Your task to perform on an android device: Show the shopping cart on newegg. Add "usb-a" to the cart on newegg, then select checkout. Image 0: 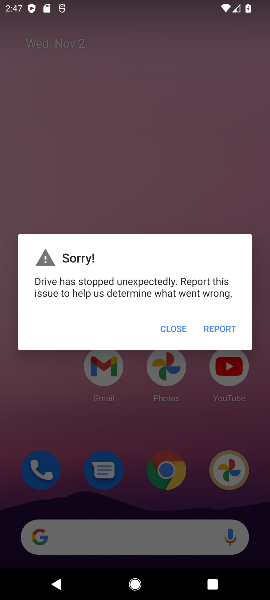
Step 0: click (165, 326)
Your task to perform on an android device: Show the shopping cart on newegg. Add "usb-a" to the cart on newegg, then select checkout. Image 1: 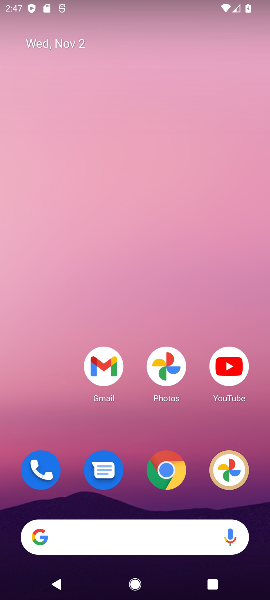
Step 1: drag from (88, 476) to (135, 116)
Your task to perform on an android device: Show the shopping cart on newegg. Add "usb-a" to the cart on newegg, then select checkout. Image 2: 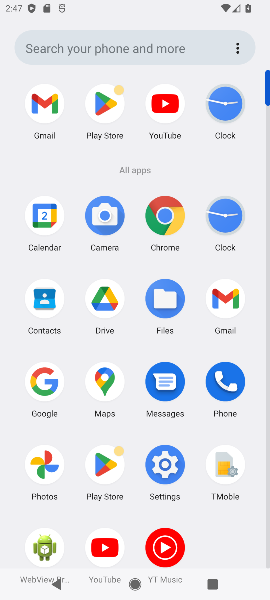
Step 2: click (41, 374)
Your task to perform on an android device: Show the shopping cart on newegg. Add "usb-a" to the cart on newegg, then select checkout. Image 3: 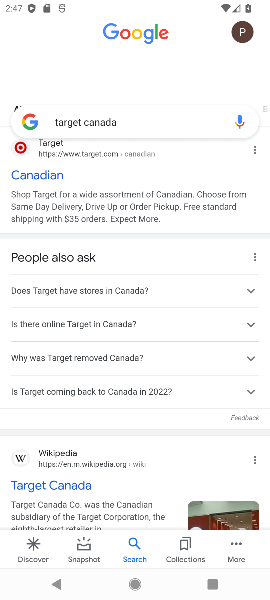
Step 3: click (131, 124)
Your task to perform on an android device: Show the shopping cart on newegg. Add "usb-a" to the cart on newegg, then select checkout. Image 4: 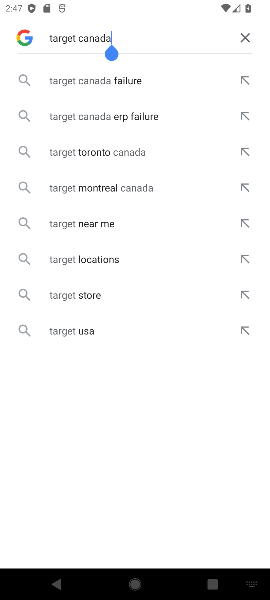
Step 4: click (247, 44)
Your task to perform on an android device: Show the shopping cart on newegg. Add "usb-a" to the cart on newegg, then select checkout. Image 5: 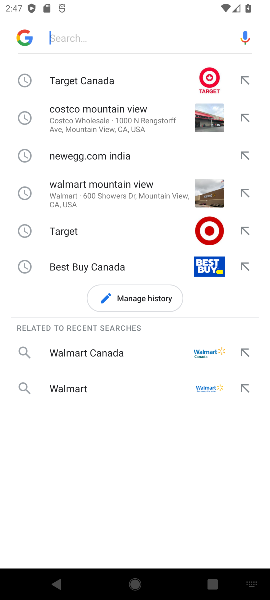
Step 5: click (96, 33)
Your task to perform on an android device: Show the shopping cart on newegg. Add "usb-a" to the cart on newegg, then select checkout. Image 6: 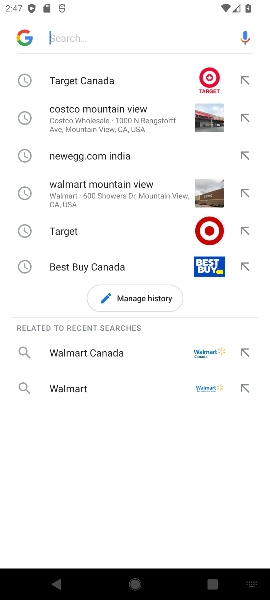
Step 6: type "newegg "
Your task to perform on an android device: Show the shopping cart on newegg. Add "usb-a" to the cart on newegg, then select checkout. Image 7: 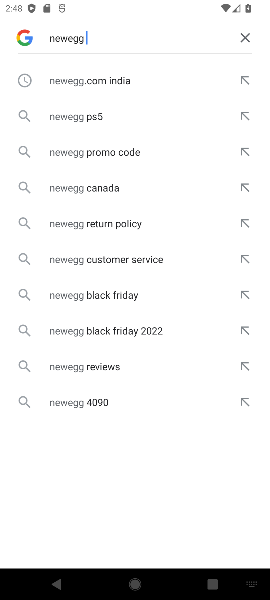
Step 7: click (85, 81)
Your task to perform on an android device: Show the shopping cart on newegg. Add "usb-a" to the cart on newegg, then select checkout. Image 8: 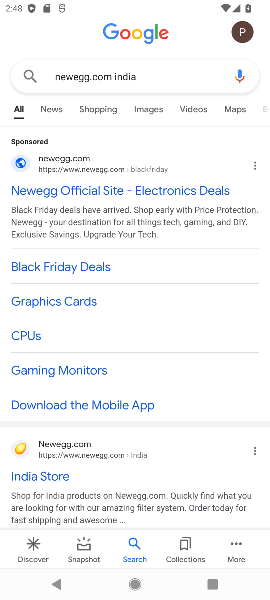
Step 8: click (17, 448)
Your task to perform on an android device: Show the shopping cart on newegg. Add "usb-a" to the cart on newegg, then select checkout. Image 9: 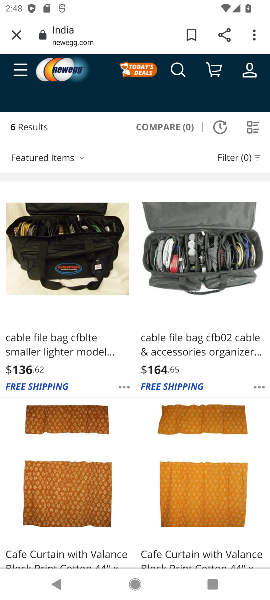
Step 9: click (176, 74)
Your task to perform on an android device: Show the shopping cart on newegg. Add "usb-a" to the cart on newegg, then select checkout. Image 10: 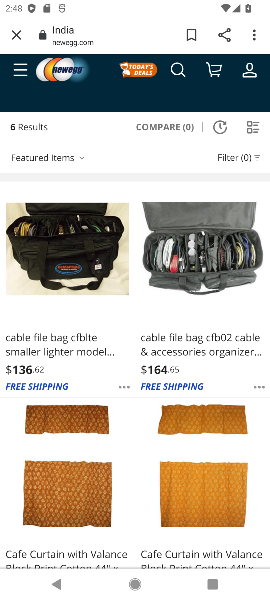
Step 10: click (175, 69)
Your task to perform on an android device: Show the shopping cart on newegg. Add "usb-a" to the cart on newegg, then select checkout. Image 11: 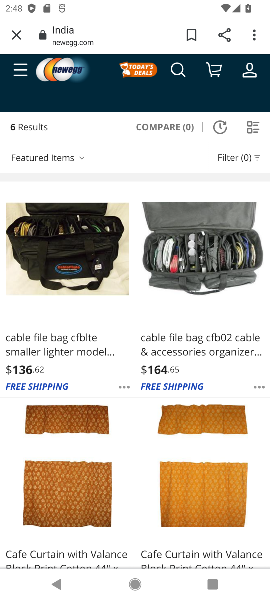
Step 11: click (178, 68)
Your task to perform on an android device: Show the shopping cart on newegg. Add "usb-a" to the cart on newegg, then select checkout. Image 12: 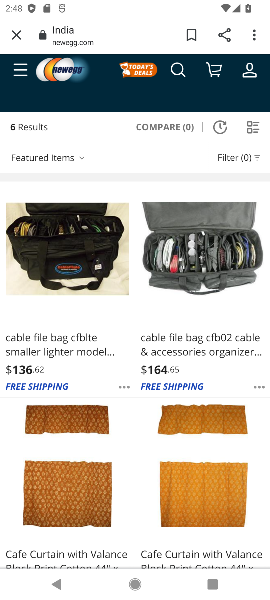
Step 12: click (176, 70)
Your task to perform on an android device: Show the shopping cart on newegg. Add "usb-a" to the cart on newegg, then select checkout. Image 13: 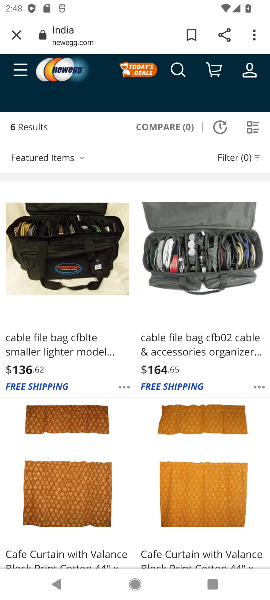
Step 13: click (175, 70)
Your task to perform on an android device: Show the shopping cart on newegg. Add "usb-a" to the cart on newegg, then select checkout. Image 14: 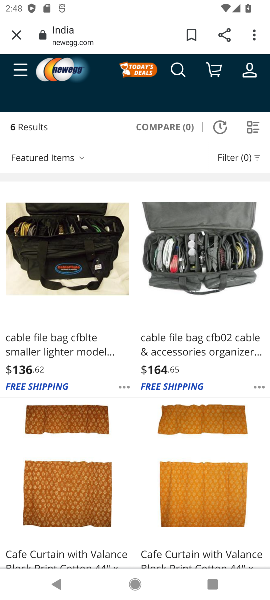
Step 14: type "usb-a" "
Your task to perform on an android device: Show the shopping cart on newegg. Add "usb-a" to the cart on newegg, then select checkout. Image 15: 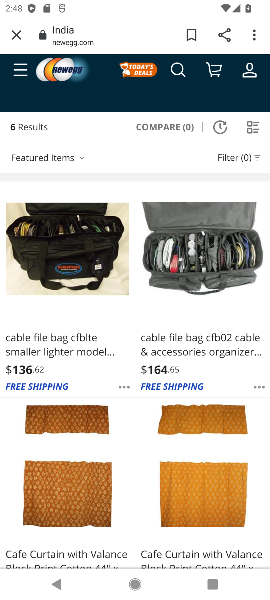
Step 15: click (172, 69)
Your task to perform on an android device: Show the shopping cart on newegg. Add "usb-a" to the cart on newegg, then select checkout. Image 16: 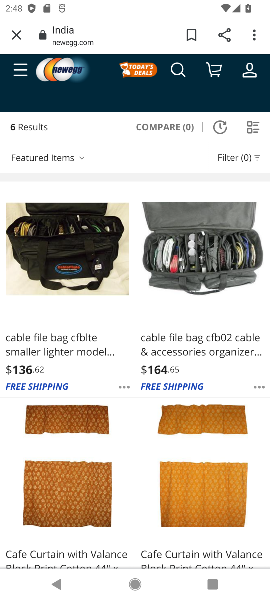
Step 16: click (172, 69)
Your task to perform on an android device: Show the shopping cart on newegg. Add "usb-a" to the cart on newegg, then select checkout. Image 17: 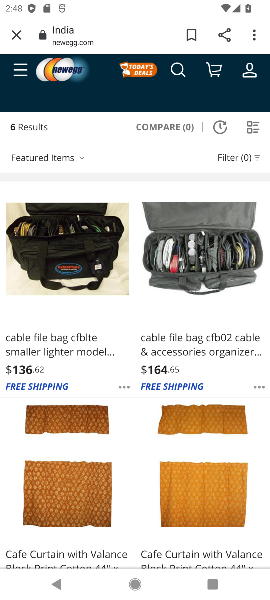
Step 17: click (172, 69)
Your task to perform on an android device: Show the shopping cart on newegg. Add "usb-a" to the cart on newegg, then select checkout. Image 18: 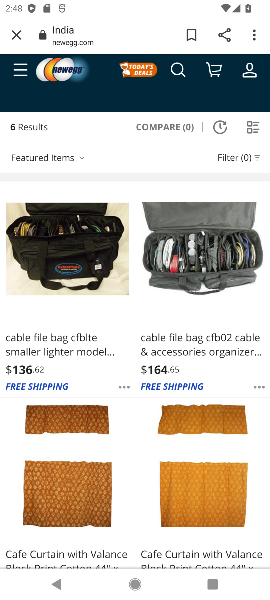
Step 18: click (172, 69)
Your task to perform on an android device: Show the shopping cart on newegg. Add "usb-a" to the cart on newegg, then select checkout. Image 19: 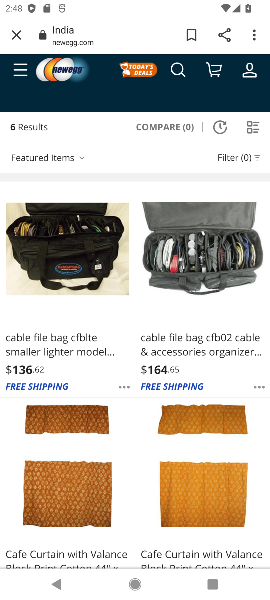
Step 19: click (172, 69)
Your task to perform on an android device: Show the shopping cart on newegg. Add "usb-a" to the cart on newegg, then select checkout. Image 20: 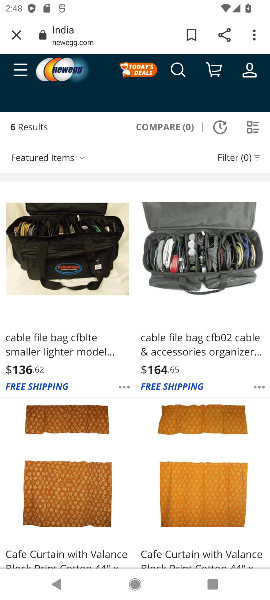
Step 20: click (172, 69)
Your task to perform on an android device: Show the shopping cart on newegg. Add "usb-a" to the cart on newegg, then select checkout. Image 21: 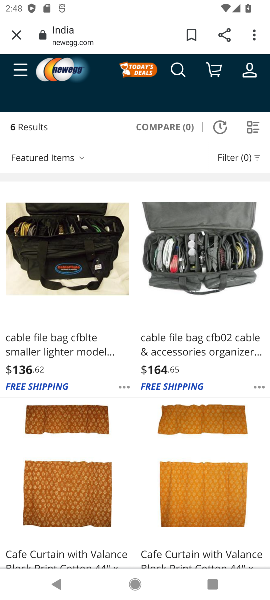
Step 21: click (172, 69)
Your task to perform on an android device: Show the shopping cart on newegg. Add "usb-a" to the cart on newegg, then select checkout. Image 22: 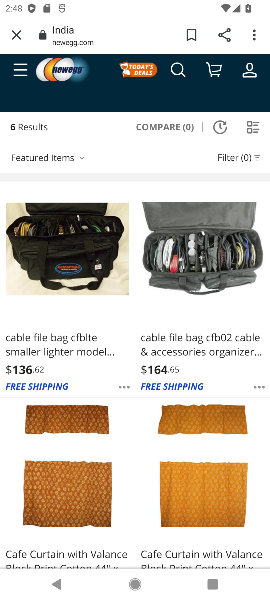
Step 22: click (172, 69)
Your task to perform on an android device: Show the shopping cart on newegg. Add "usb-a" to the cart on newegg, then select checkout. Image 23: 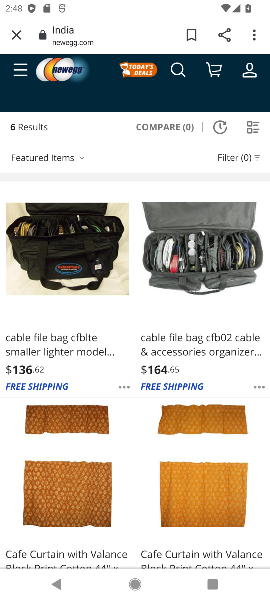
Step 23: click (172, 69)
Your task to perform on an android device: Show the shopping cart on newegg. Add "usb-a" to the cart on newegg, then select checkout. Image 24: 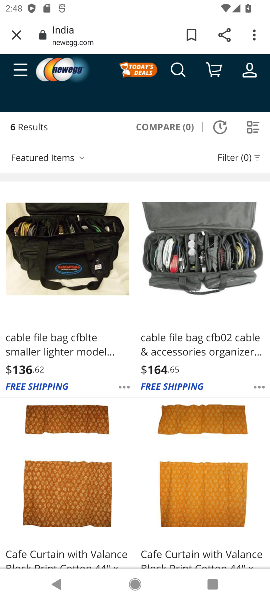
Step 24: click (172, 69)
Your task to perform on an android device: Show the shopping cart on newegg. Add "usb-a" to the cart on newegg, then select checkout. Image 25: 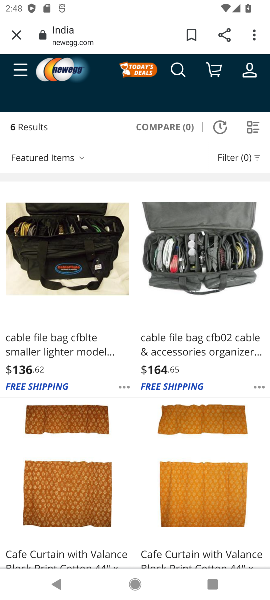
Step 25: click (172, 69)
Your task to perform on an android device: Show the shopping cart on newegg. Add "usb-a" to the cart on newegg, then select checkout. Image 26: 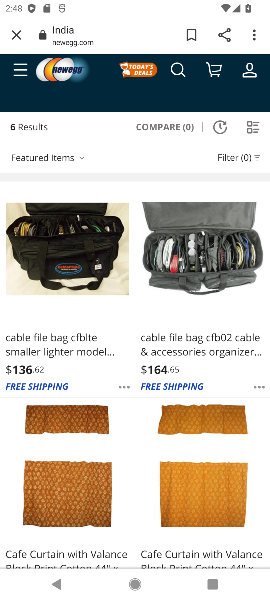
Step 26: click (177, 69)
Your task to perform on an android device: Show the shopping cart on newegg. Add "usb-a" to the cart on newegg, then select checkout. Image 27: 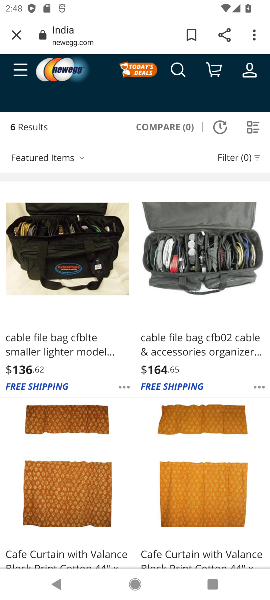
Step 27: click (177, 69)
Your task to perform on an android device: Show the shopping cart on newegg. Add "usb-a" to the cart on newegg, then select checkout. Image 28: 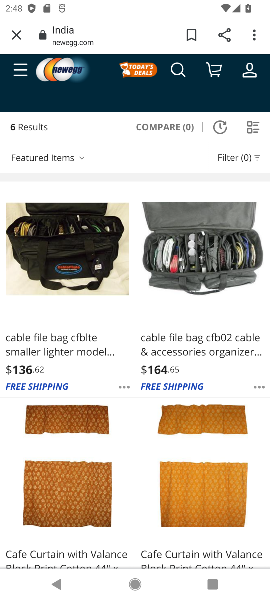
Step 28: click (177, 69)
Your task to perform on an android device: Show the shopping cart on newegg. Add "usb-a" to the cart on newegg, then select checkout. Image 29: 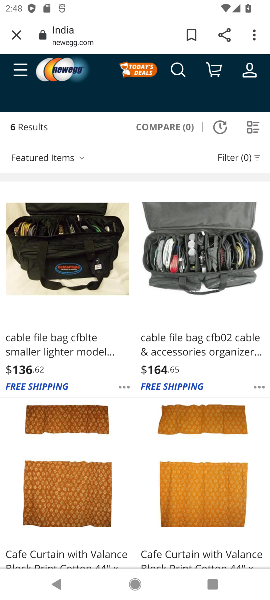
Step 29: click (177, 69)
Your task to perform on an android device: Show the shopping cart on newegg. Add "usb-a" to the cart on newegg, then select checkout. Image 30: 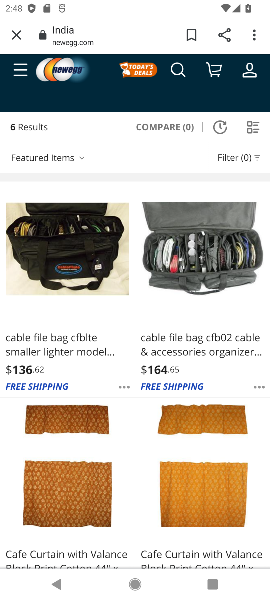
Step 30: click (177, 69)
Your task to perform on an android device: Show the shopping cart on newegg. Add "usb-a" to the cart on newegg, then select checkout. Image 31: 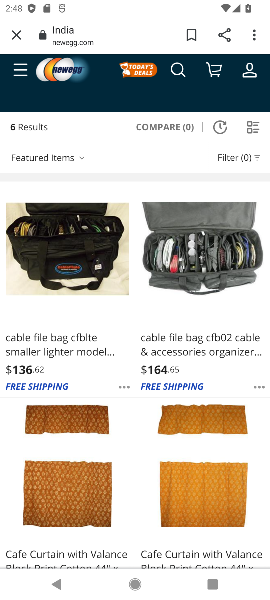
Step 31: click (177, 69)
Your task to perform on an android device: Show the shopping cart on newegg. Add "usb-a" to the cart on newegg, then select checkout. Image 32: 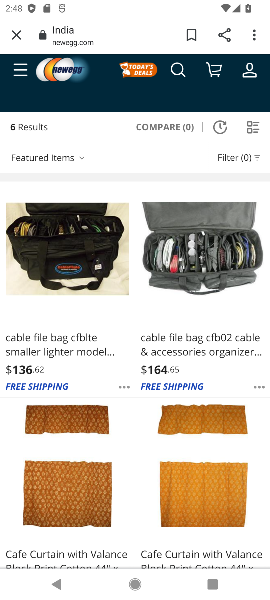
Step 32: click (177, 69)
Your task to perform on an android device: Show the shopping cart on newegg. Add "usb-a" to the cart on newegg, then select checkout. Image 33: 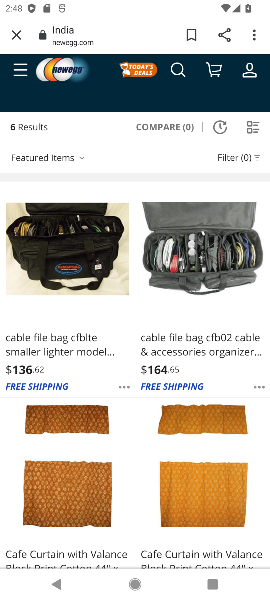
Step 33: drag from (134, 543) to (174, 232)
Your task to perform on an android device: Show the shopping cart on newegg. Add "usb-a" to the cart on newegg, then select checkout. Image 34: 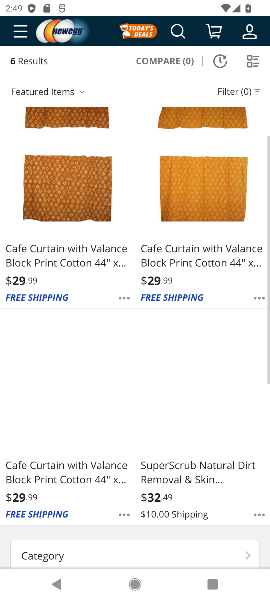
Step 34: drag from (167, 199) to (159, 588)
Your task to perform on an android device: Show the shopping cart on newegg. Add "usb-a" to the cart on newegg, then select checkout. Image 35: 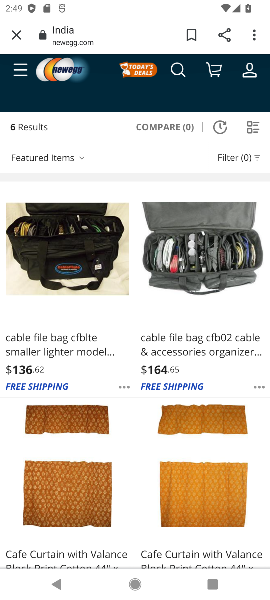
Step 35: drag from (159, 258) to (165, 506)
Your task to perform on an android device: Show the shopping cart on newegg. Add "usb-a" to the cart on newegg, then select checkout. Image 36: 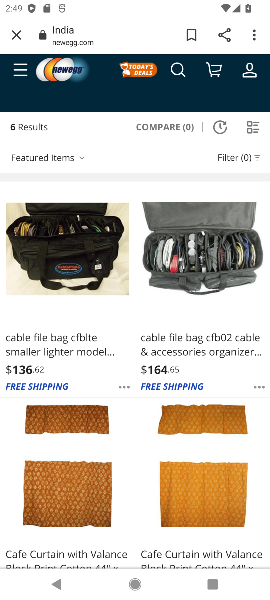
Step 36: click (174, 69)
Your task to perform on an android device: Show the shopping cart on newegg. Add "usb-a" to the cart on newegg, then select checkout. Image 37: 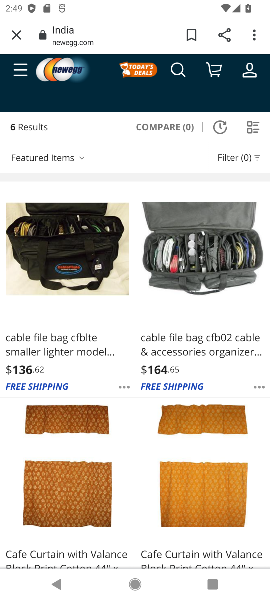
Step 37: click (177, 68)
Your task to perform on an android device: Show the shopping cart on newegg. Add "usb-a" to the cart on newegg, then select checkout. Image 38: 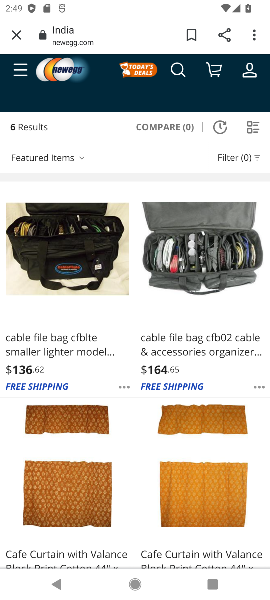
Step 38: click (177, 68)
Your task to perform on an android device: Show the shopping cart on newegg. Add "usb-a" to the cart on newegg, then select checkout. Image 39: 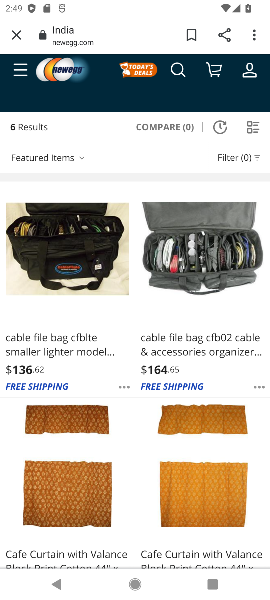
Step 39: click (177, 68)
Your task to perform on an android device: Show the shopping cart on newegg. Add "usb-a" to the cart on newegg, then select checkout. Image 40: 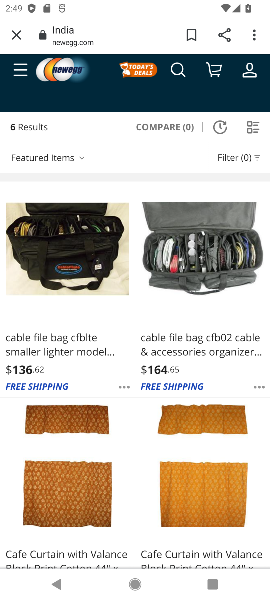
Step 40: click (177, 68)
Your task to perform on an android device: Show the shopping cart on newegg. Add "usb-a" to the cart on newegg, then select checkout. Image 41: 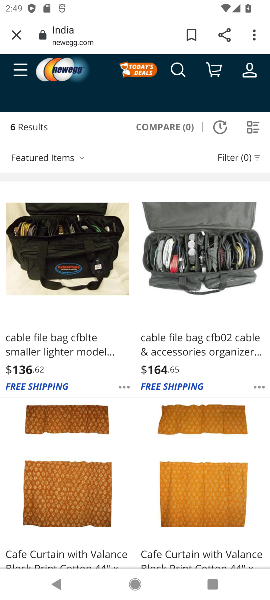
Step 41: click (177, 68)
Your task to perform on an android device: Show the shopping cart on newegg. Add "usb-a" to the cart on newegg, then select checkout. Image 42: 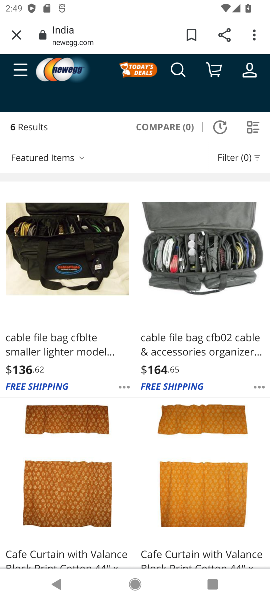
Step 42: click (177, 68)
Your task to perform on an android device: Show the shopping cart on newegg. Add "usb-a" to the cart on newegg, then select checkout. Image 43: 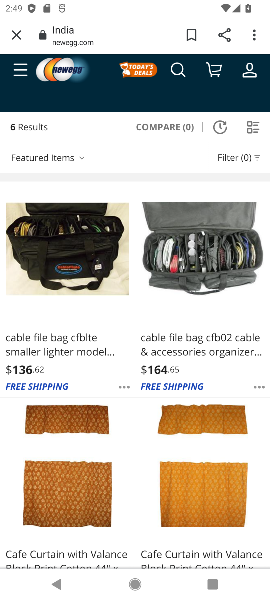
Step 43: click (177, 68)
Your task to perform on an android device: Show the shopping cart on newegg. Add "usb-a" to the cart on newegg, then select checkout. Image 44: 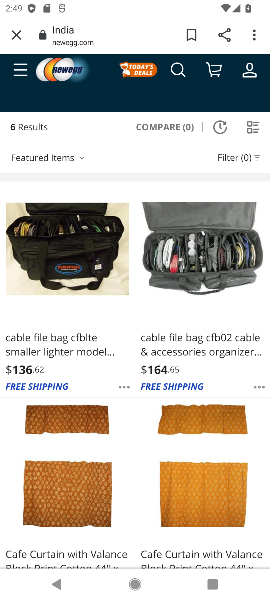
Step 44: click (177, 68)
Your task to perform on an android device: Show the shopping cart on newegg. Add "usb-a" to the cart on newegg, then select checkout. Image 45: 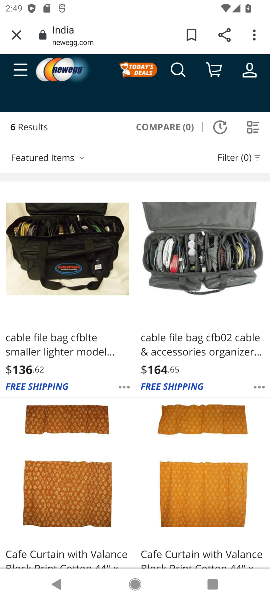
Step 45: click (177, 68)
Your task to perform on an android device: Show the shopping cart on newegg. Add "usb-a" to the cart on newegg, then select checkout. Image 46: 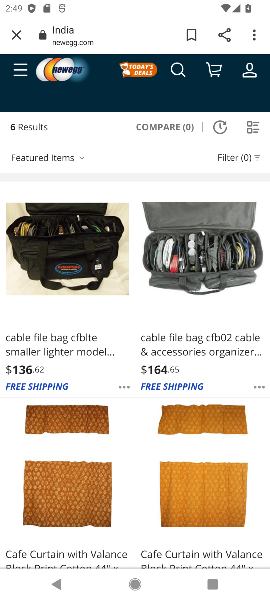
Step 46: click (177, 68)
Your task to perform on an android device: Show the shopping cart on newegg. Add "usb-a" to the cart on newegg, then select checkout. Image 47: 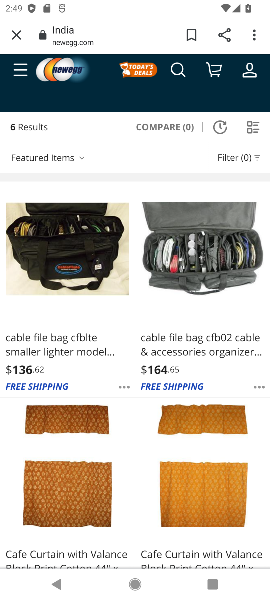
Step 47: click (177, 68)
Your task to perform on an android device: Show the shopping cart on newegg. Add "usb-a" to the cart on newegg, then select checkout. Image 48: 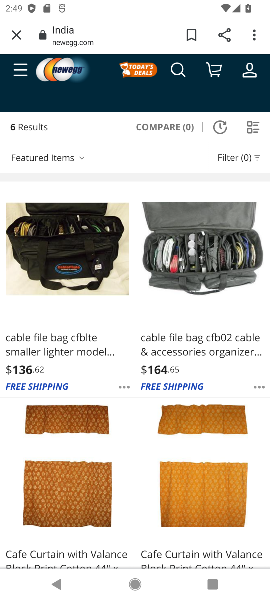
Step 48: task complete